Your task to perform on an android device: toggle show notifications on the lock screen Image 0: 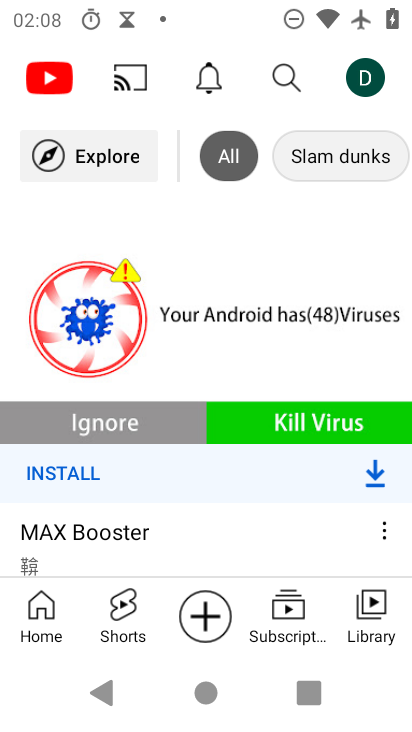
Step 0: press home button
Your task to perform on an android device: toggle show notifications on the lock screen Image 1: 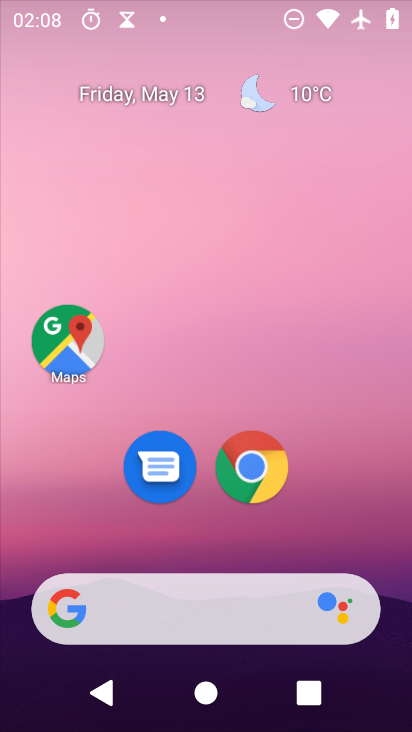
Step 1: drag from (350, 530) to (286, 82)
Your task to perform on an android device: toggle show notifications on the lock screen Image 2: 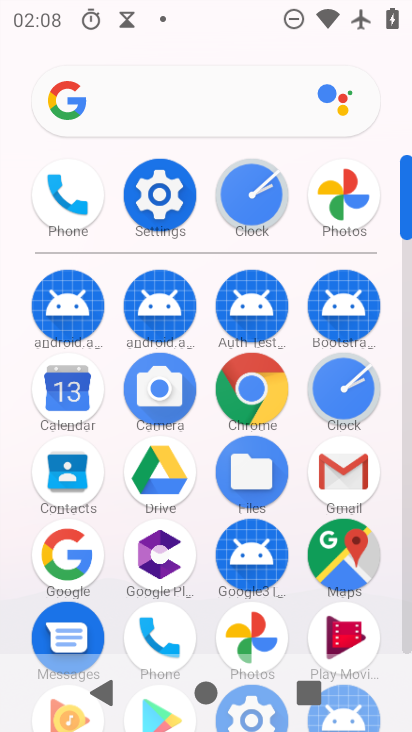
Step 2: click (161, 199)
Your task to perform on an android device: toggle show notifications on the lock screen Image 3: 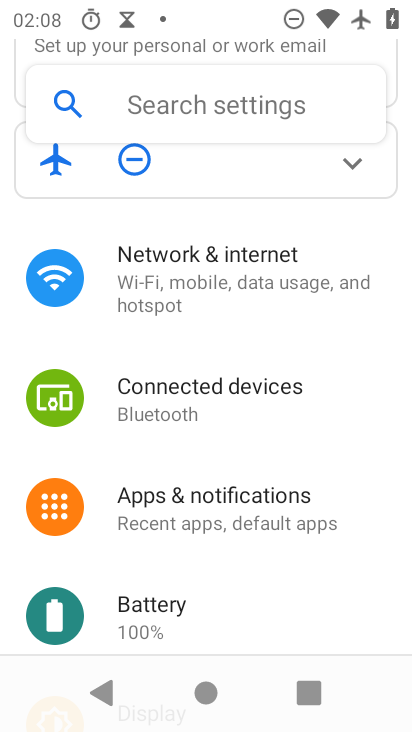
Step 3: click (221, 508)
Your task to perform on an android device: toggle show notifications on the lock screen Image 4: 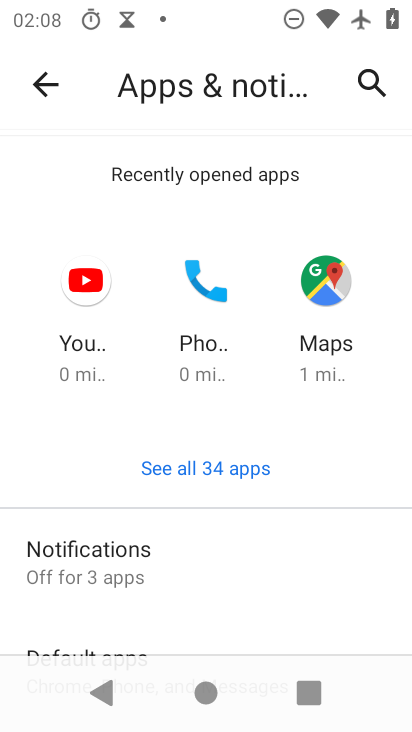
Step 4: click (200, 549)
Your task to perform on an android device: toggle show notifications on the lock screen Image 5: 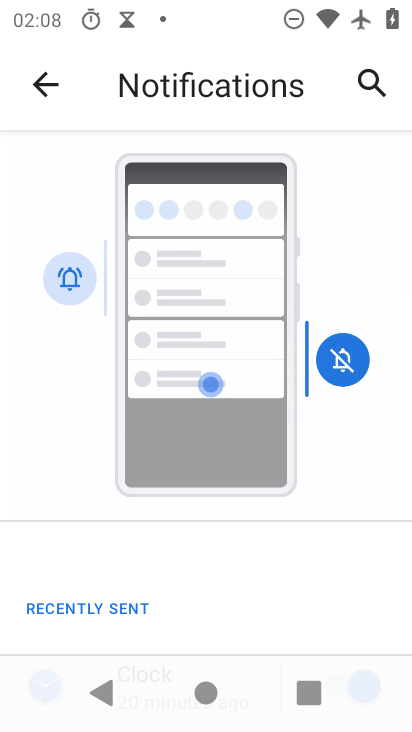
Step 5: drag from (237, 606) to (255, 261)
Your task to perform on an android device: toggle show notifications on the lock screen Image 6: 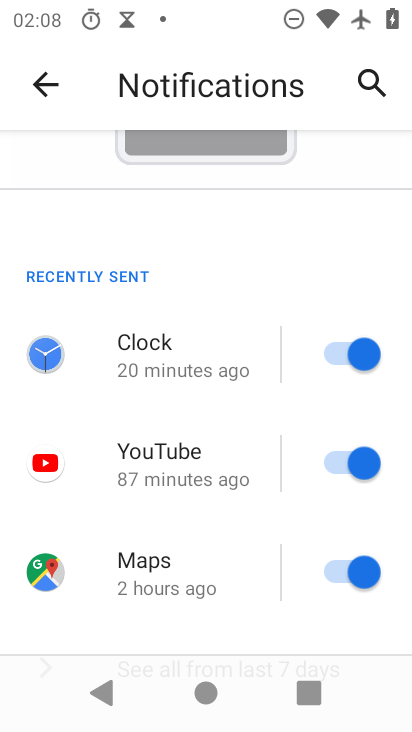
Step 6: drag from (236, 581) to (223, 186)
Your task to perform on an android device: toggle show notifications on the lock screen Image 7: 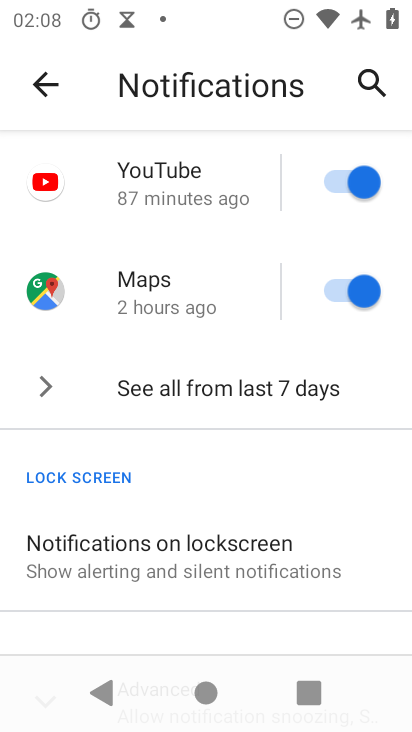
Step 7: click (180, 551)
Your task to perform on an android device: toggle show notifications on the lock screen Image 8: 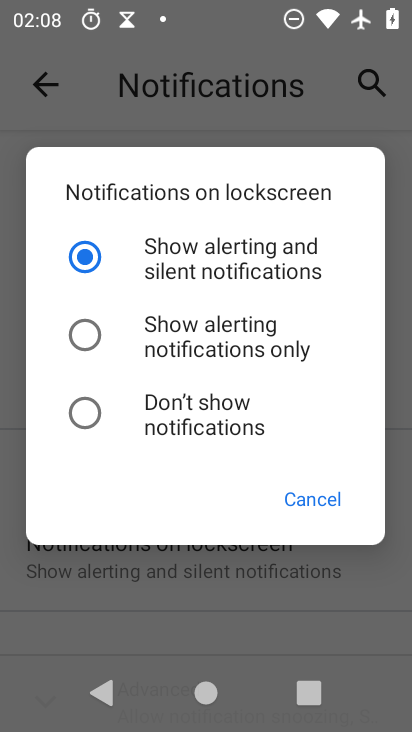
Step 8: click (209, 407)
Your task to perform on an android device: toggle show notifications on the lock screen Image 9: 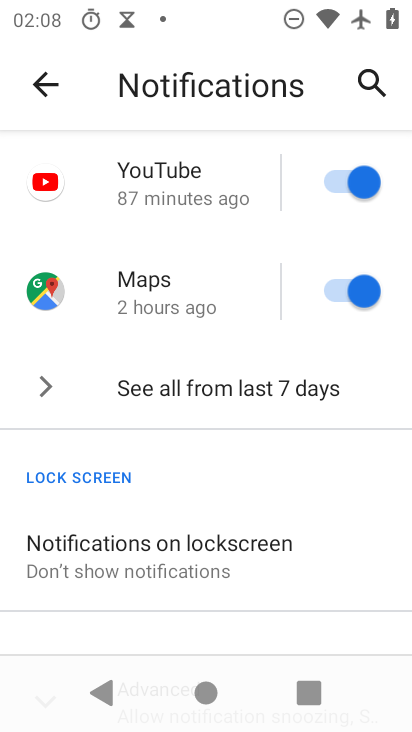
Step 9: task complete